Your task to perform on an android device: Empty the shopping cart on ebay. Search for "macbook pro 13 inch" on ebay, select the first entry, add it to the cart, then select checkout. Image 0: 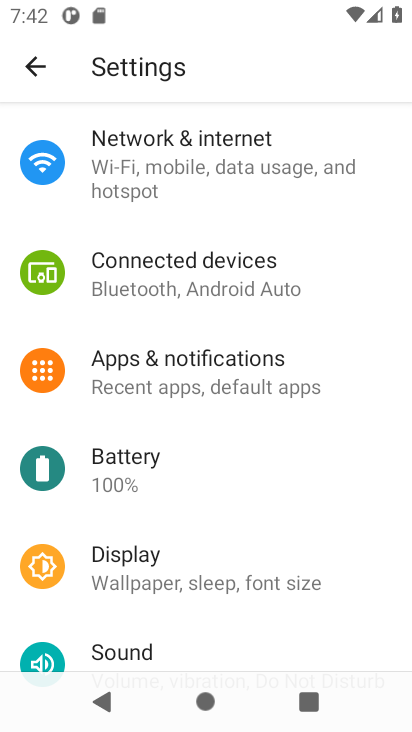
Step 0: press home button
Your task to perform on an android device: Empty the shopping cart on ebay. Search for "macbook pro 13 inch" on ebay, select the first entry, add it to the cart, then select checkout. Image 1: 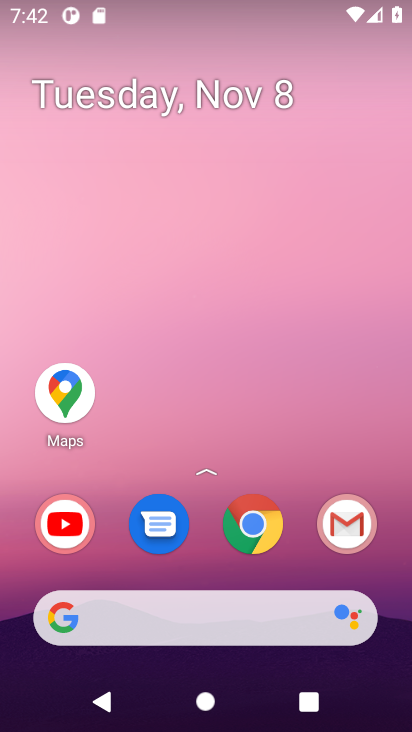
Step 1: click (245, 535)
Your task to perform on an android device: Empty the shopping cart on ebay. Search for "macbook pro 13 inch" on ebay, select the first entry, add it to the cart, then select checkout. Image 2: 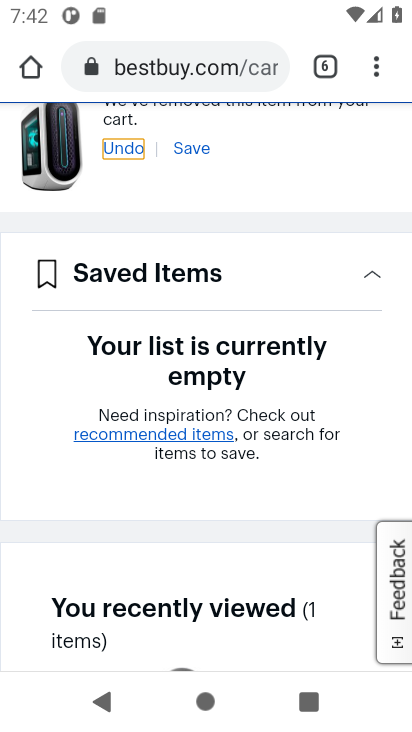
Step 2: click (190, 79)
Your task to perform on an android device: Empty the shopping cart on ebay. Search for "macbook pro 13 inch" on ebay, select the first entry, add it to the cart, then select checkout. Image 3: 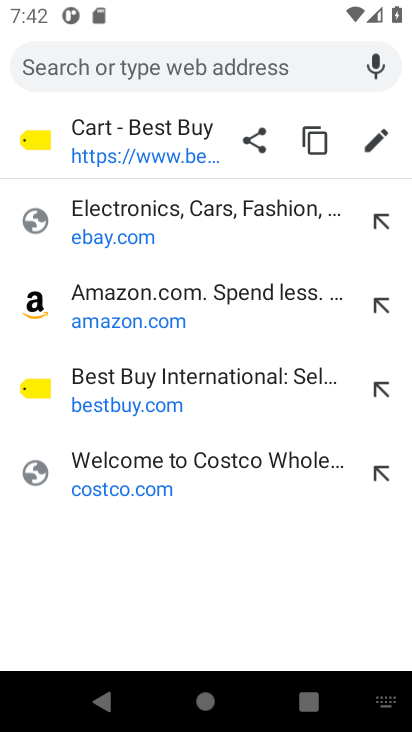
Step 3: click (124, 223)
Your task to perform on an android device: Empty the shopping cart on ebay. Search for "macbook pro 13 inch" on ebay, select the first entry, add it to the cart, then select checkout. Image 4: 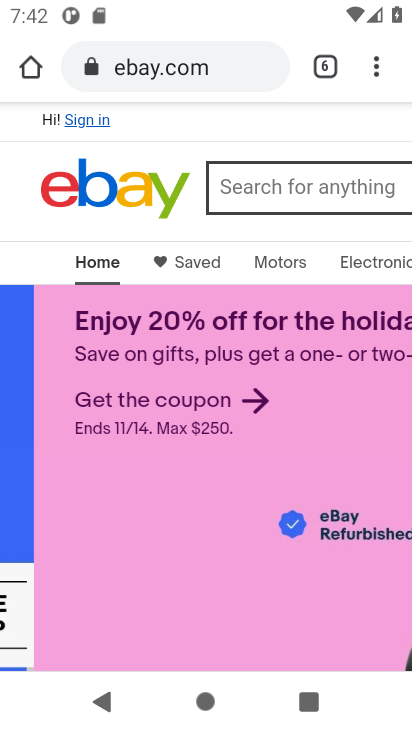
Step 4: drag from (328, 382) to (119, 359)
Your task to perform on an android device: Empty the shopping cart on ebay. Search for "macbook pro 13 inch" on ebay, select the first entry, add it to the cart, then select checkout. Image 5: 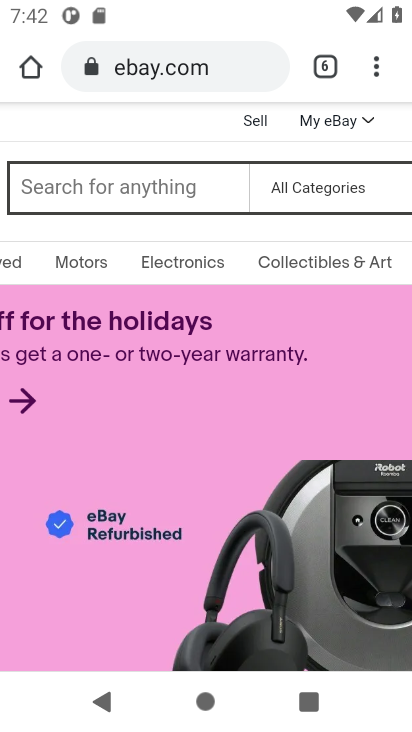
Step 5: drag from (350, 228) to (111, 206)
Your task to perform on an android device: Empty the shopping cart on ebay. Search for "macbook pro 13 inch" on ebay, select the first entry, add it to the cart, then select checkout. Image 6: 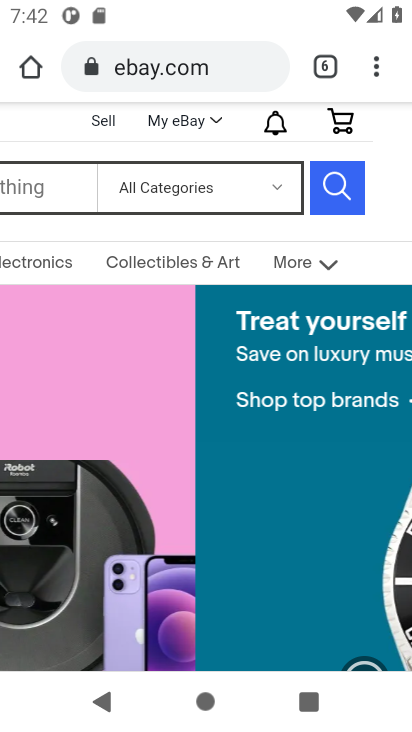
Step 6: click (334, 121)
Your task to perform on an android device: Empty the shopping cart on ebay. Search for "macbook pro 13 inch" on ebay, select the first entry, add it to the cart, then select checkout. Image 7: 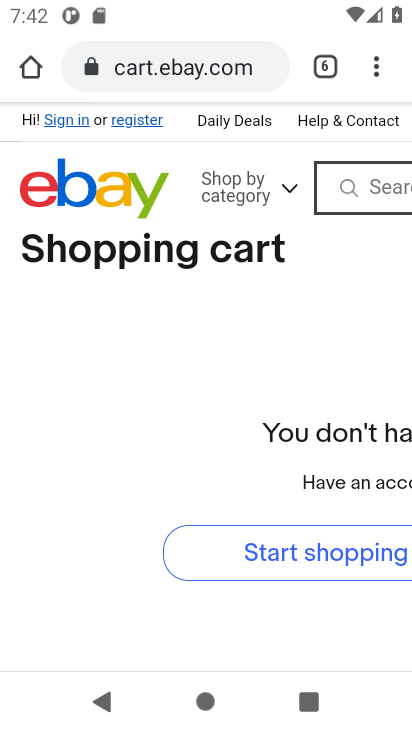
Step 7: drag from (223, 464) to (41, 466)
Your task to perform on an android device: Empty the shopping cart on ebay. Search for "macbook pro 13 inch" on ebay, select the first entry, add it to the cart, then select checkout. Image 8: 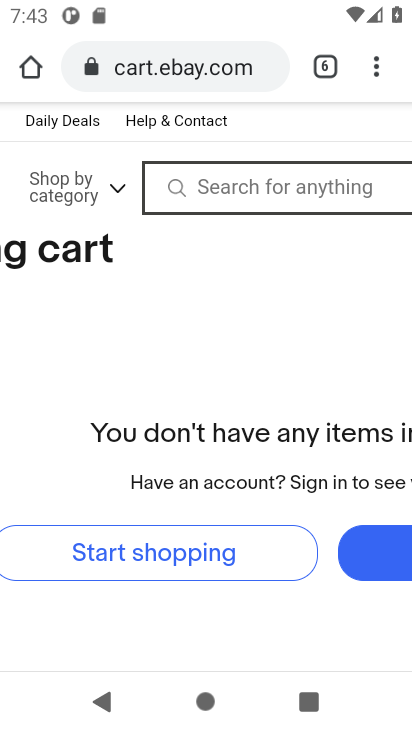
Step 8: click (288, 201)
Your task to perform on an android device: Empty the shopping cart on ebay. Search for "macbook pro 13 inch" on ebay, select the first entry, add it to the cart, then select checkout. Image 9: 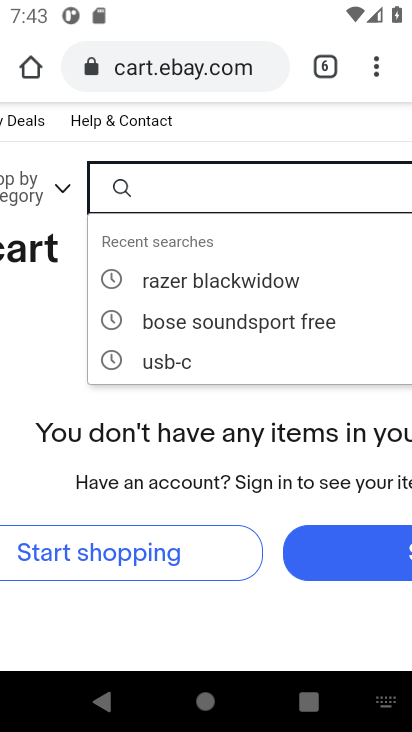
Step 9: type "macbook pro 13 inch"
Your task to perform on an android device: Empty the shopping cart on ebay. Search for "macbook pro 13 inch" on ebay, select the first entry, add it to the cart, then select checkout. Image 10: 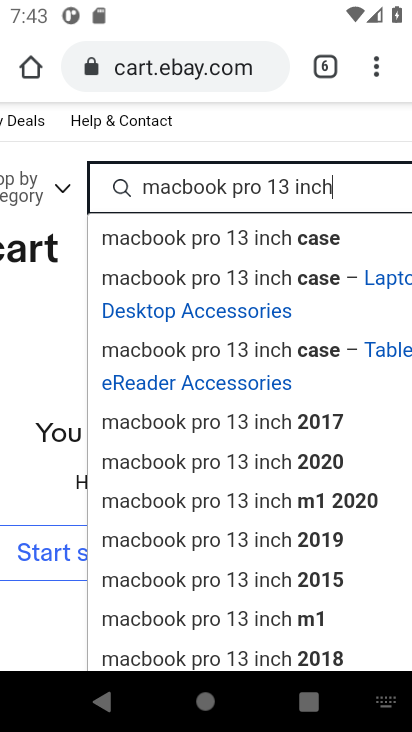
Step 10: drag from (365, 206) to (58, 201)
Your task to perform on an android device: Empty the shopping cart on ebay. Search for "macbook pro 13 inch" on ebay, select the first entry, add it to the cart, then select checkout. Image 11: 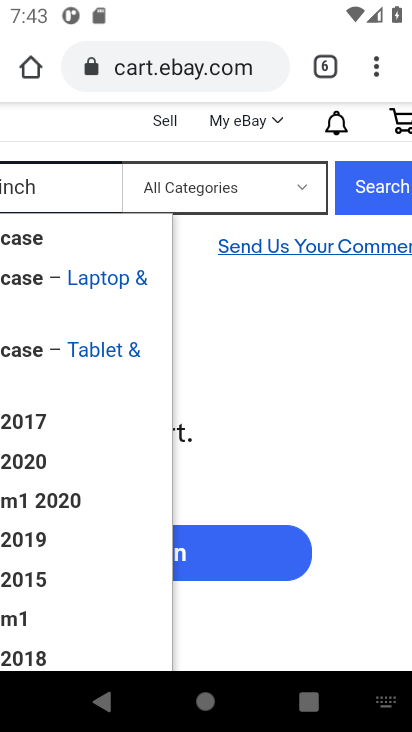
Step 11: drag from (332, 188) to (170, 189)
Your task to perform on an android device: Empty the shopping cart on ebay. Search for "macbook pro 13 inch" on ebay, select the first entry, add it to the cart, then select checkout. Image 12: 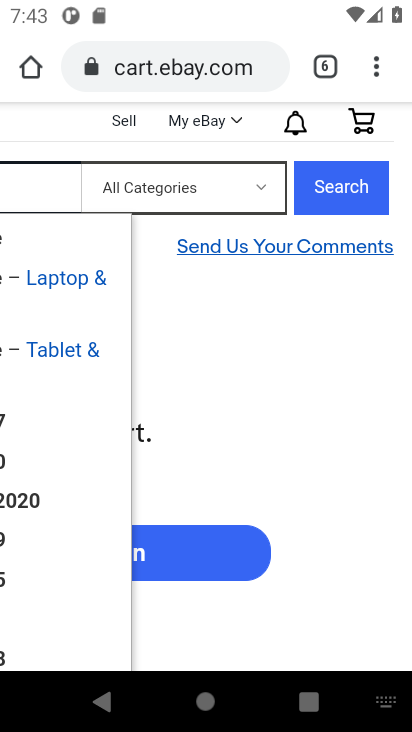
Step 12: click (352, 200)
Your task to perform on an android device: Empty the shopping cart on ebay. Search for "macbook pro 13 inch" on ebay, select the first entry, add it to the cart, then select checkout. Image 13: 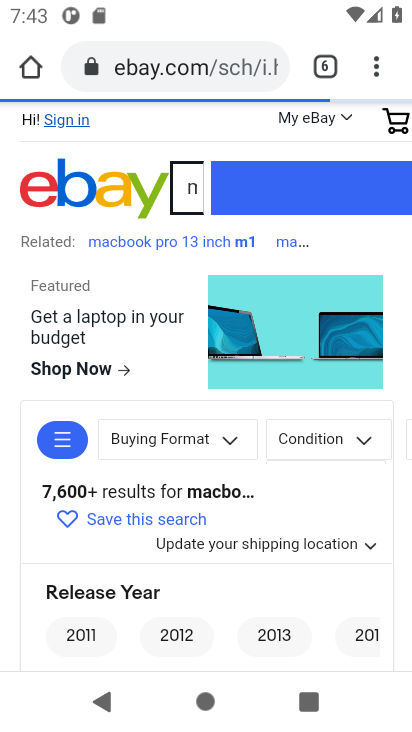
Step 13: drag from (245, 510) to (238, 299)
Your task to perform on an android device: Empty the shopping cart on ebay. Search for "macbook pro 13 inch" on ebay, select the first entry, add it to the cart, then select checkout. Image 14: 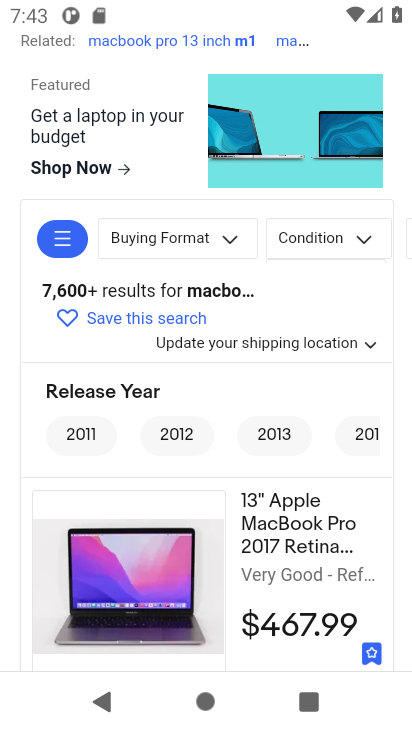
Step 14: drag from (158, 547) to (166, 385)
Your task to perform on an android device: Empty the shopping cart on ebay. Search for "macbook pro 13 inch" on ebay, select the first entry, add it to the cart, then select checkout. Image 15: 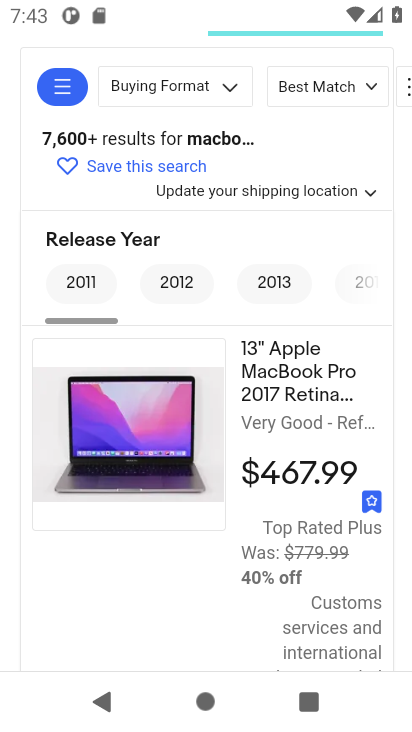
Step 15: drag from (283, 474) to (264, 320)
Your task to perform on an android device: Empty the shopping cart on ebay. Search for "macbook pro 13 inch" on ebay, select the first entry, add it to the cart, then select checkout. Image 16: 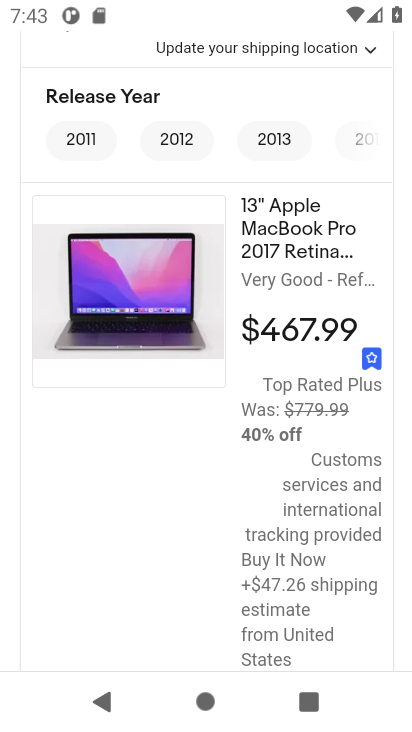
Step 16: drag from (270, 525) to (250, 307)
Your task to perform on an android device: Empty the shopping cart on ebay. Search for "macbook pro 13 inch" on ebay, select the first entry, add it to the cart, then select checkout. Image 17: 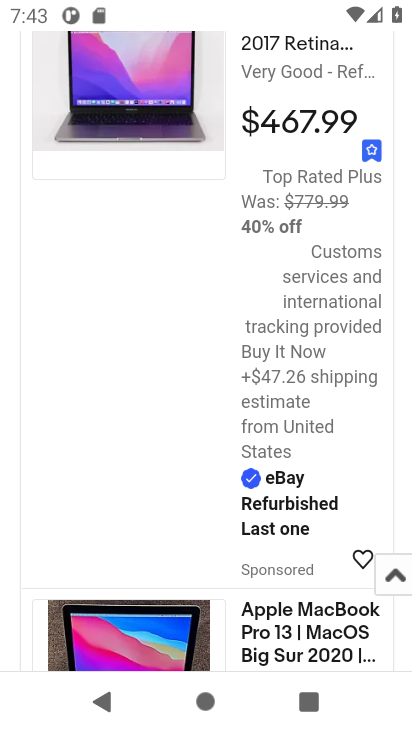
Step 17: drag from (321, 439) to (71, 428)
Your task to perform on an android device: Empty the shopping cart on ebay. Search for "macbook pro 13 inch" on ebay, select the first entry, add it to the cart, then select checkout. Image 18: 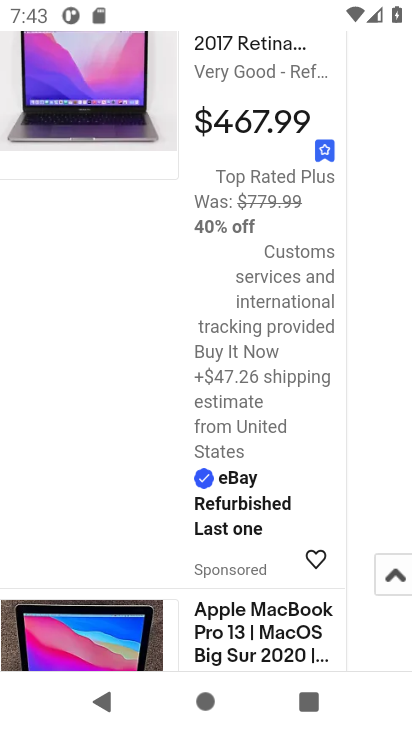
Step 18: drag from (210, 398) to (267, 403)
Your task to perform on an android device: Empty the shopping cart on ebay. Search for "macbook pro 13 inch" on ebay, select the first entry, add it to the cart, then select checkout. Image 19: 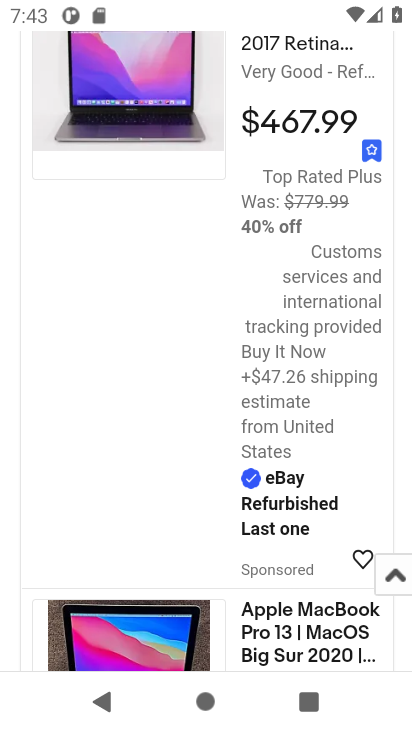
Step 19: drag from (116, 149) to (100, 290)
Your task to perform on an android device: Empty the shopping cart on ebay. Search for "macbook pro 13 inch" on ebay, select the first entry, add it to the cart, then select checkout. Image 20: 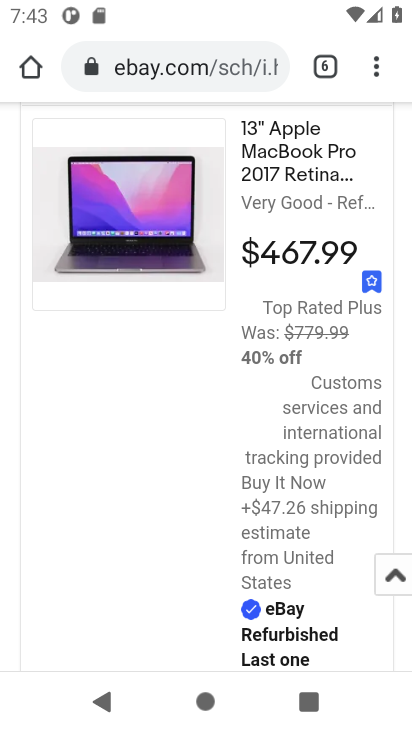
Step 20: click (133, 243)
Your task to perform on an android device: Empty the shopping cart on ebay. Search for "macbook pro 13 inch" on ebay, select the first entry, add it to the cart, then select checkout. Image 21: 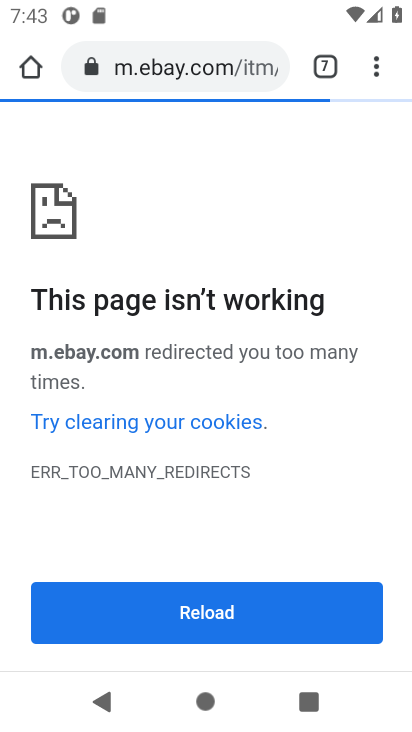
Step 21: task complete